Your task to perform on an android device: Open calendar and show me the third week of next month Image 0: 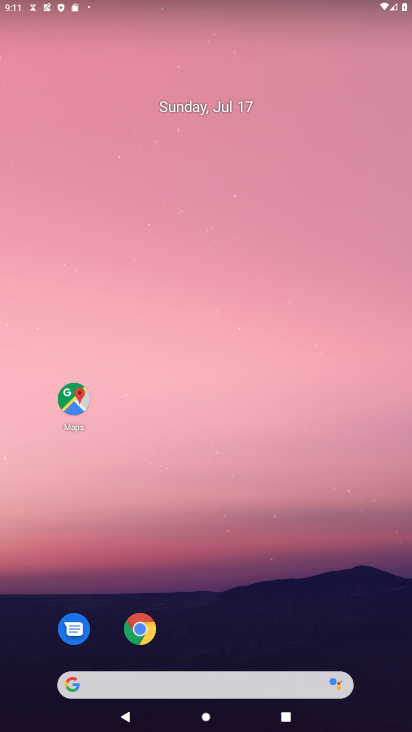
Step 0: drag from (232, 724) to (229, 136)
Your task to perform on an android device: Open calendar and show me the third week of next month Image 1: 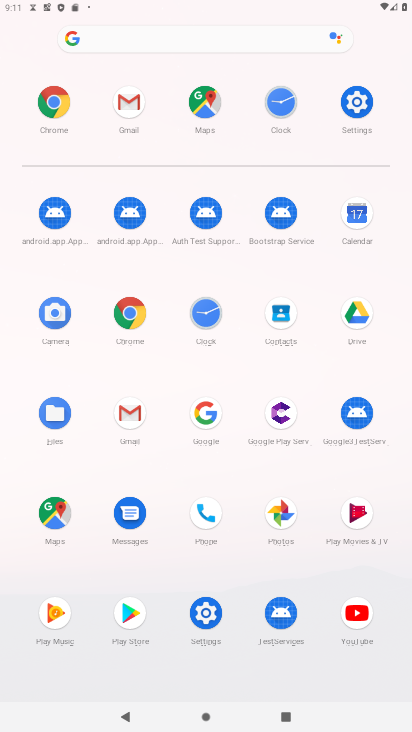
Step 1: click (362, 218)
Your task to perform on an android device: Open calendar and show me the third week of next month Image 2: 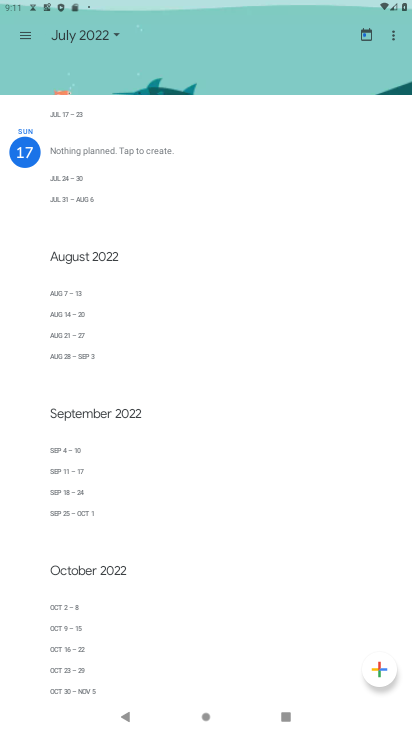
Step 2: click (119, 34)
Your task to perform on an android device: Open calendar and show me the third week of next month Image 3: 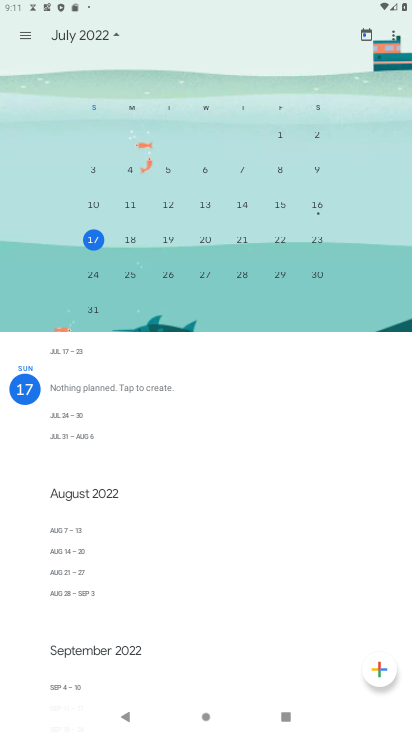
Step 3: drag from (302, 221) to (1, 199)
Your task to perform on an android device: Open calendar and show me the third week of next month Image 4: 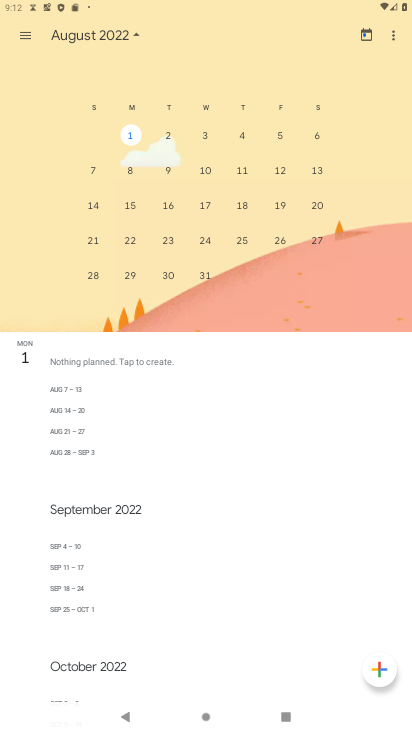
Step 4: click (131, 206)
Your task to perform on an android device: Open calendar and show me the third week of next month Image 5: 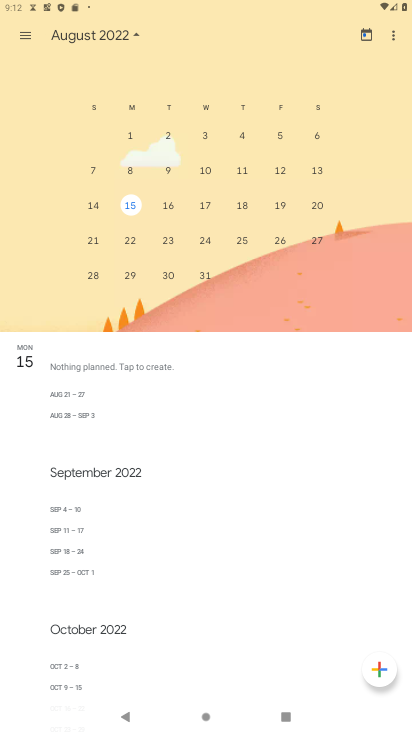
Step 5: click (22, 35)
Your task to perform on an android device: Open calendar and show me the third week of next month Image 6: 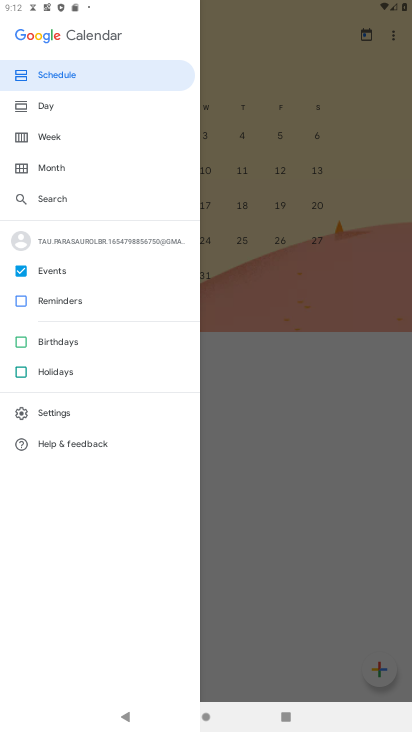
Step 6: click (53, 134)
Your task to perform on an android device: Open calendar and show me the third week of next month Image 7: 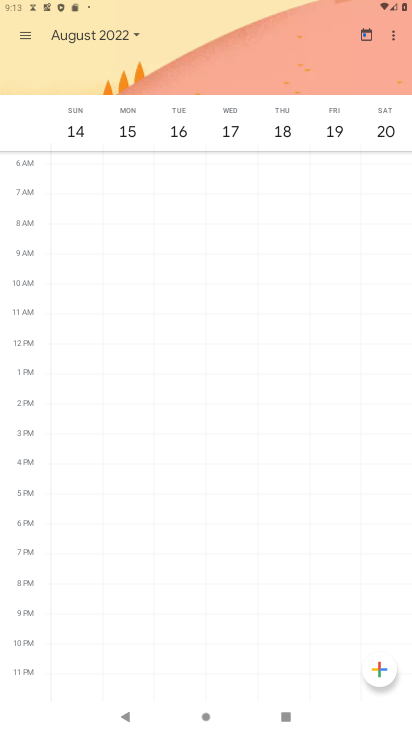
Step 7: task complete